Your task to perform on an android device: turn on translation in the chrome app Image 0: 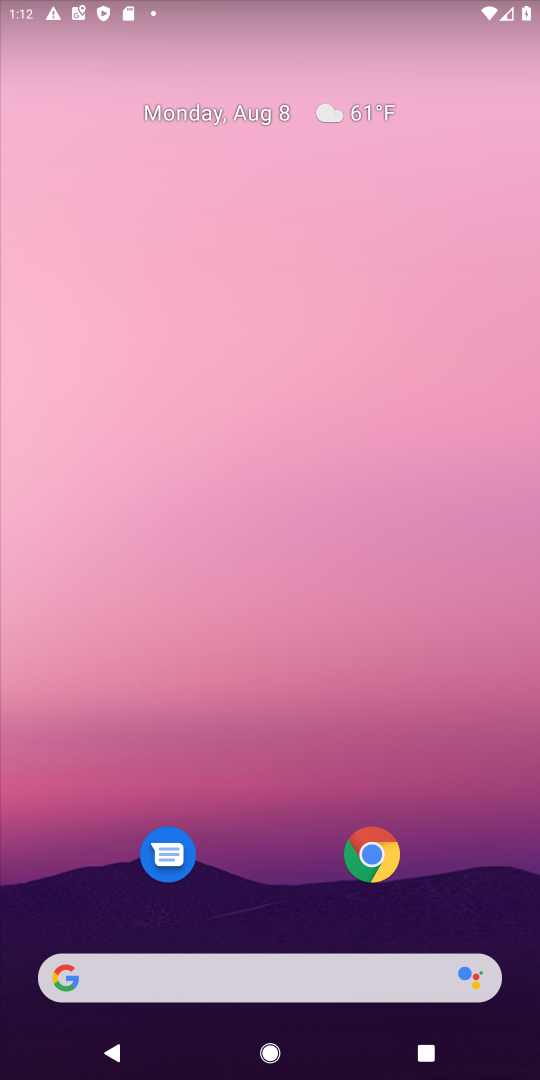
Step 0: click (394, 893)
Your task to perform on an android device: turn on translation in the chrome app Image 1: 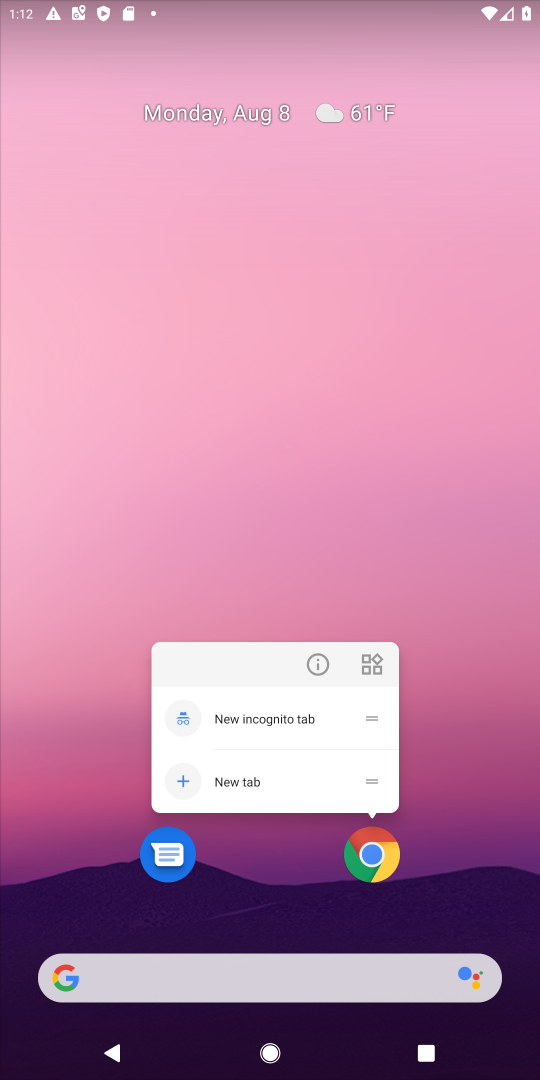
Step 1: click (363, 870)
Your task to perform on an android device: turn on translation in the chrome app Image 2: 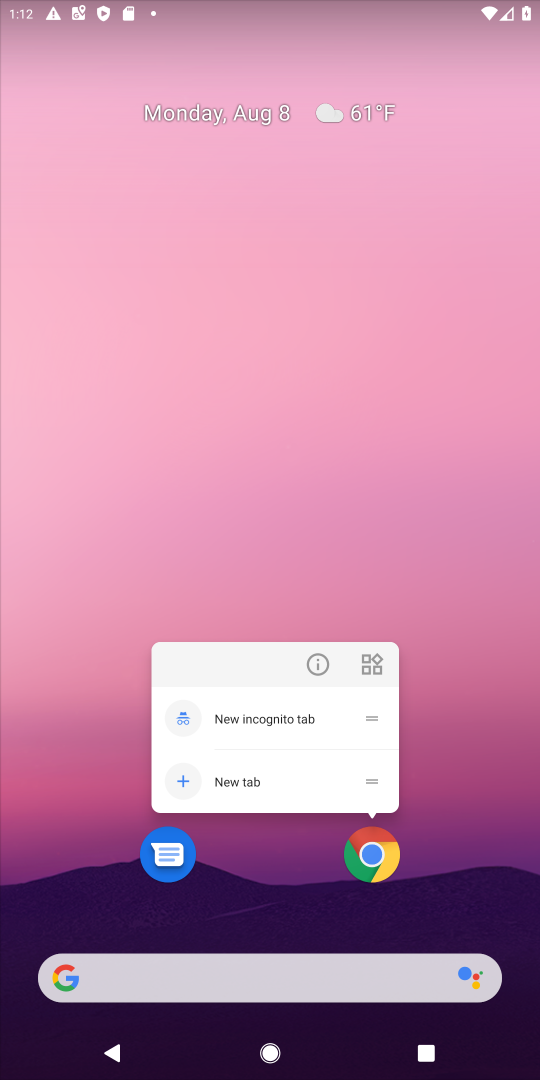
Step 2: click (366, 868)
Your task to perform on an android device: turn on translation in the chrome app Image 3: 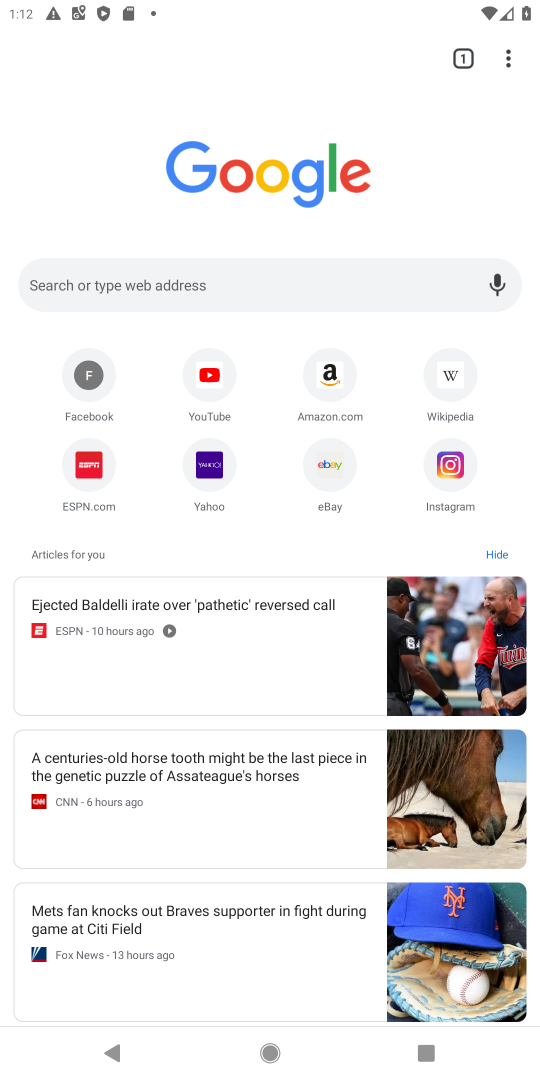
Step 3: click (515, 53)
Your task to perform on an android device: turn on translation in the chrome app Image 4: 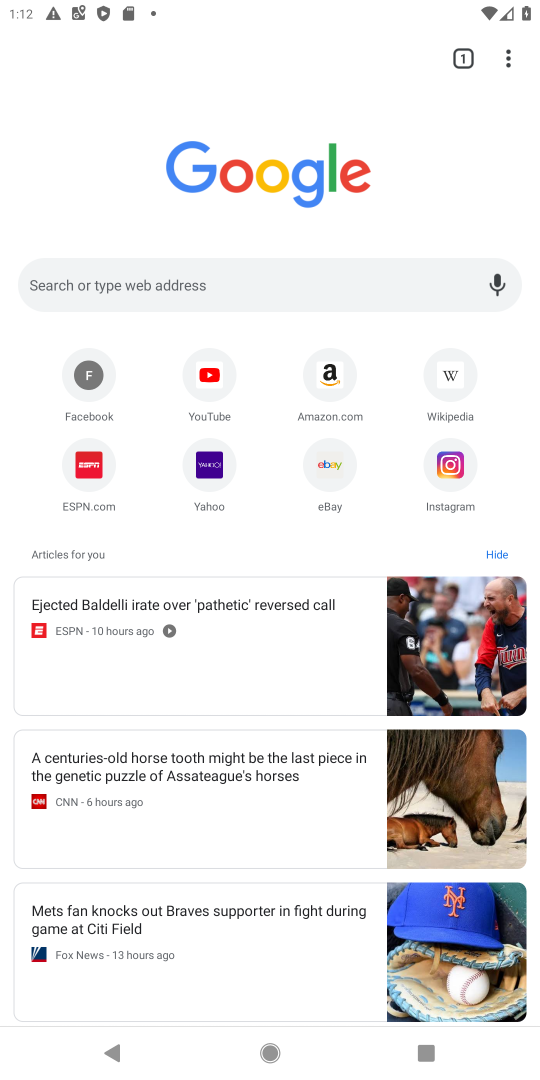
Step 4: click (512, 61)
Your task to perform on an android device: turn on translation in the chrome app Image 5: 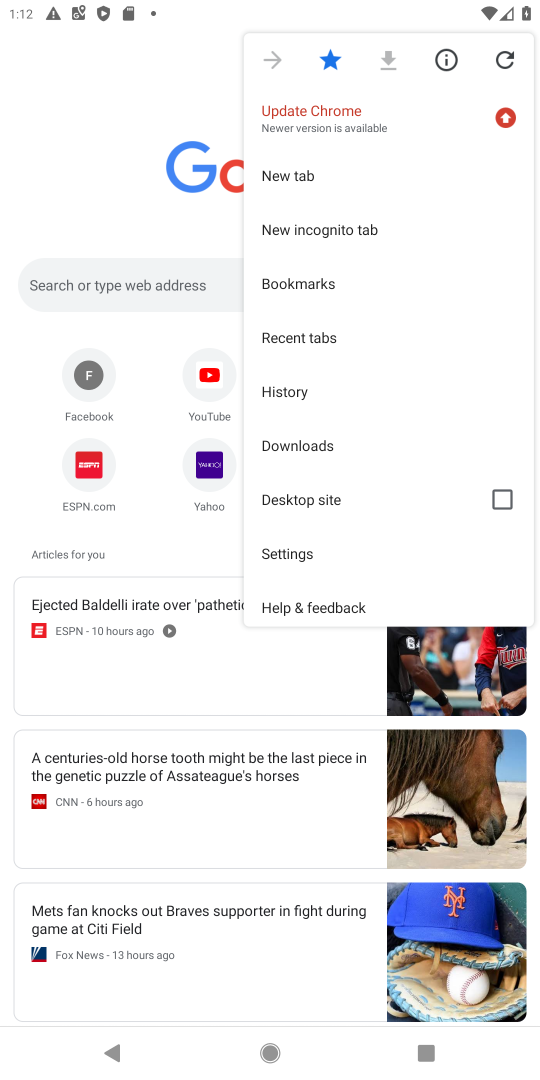
Step 5: click (307, 549)
Your task to perform on an android device: turn on translation in the chrome app Image 6: 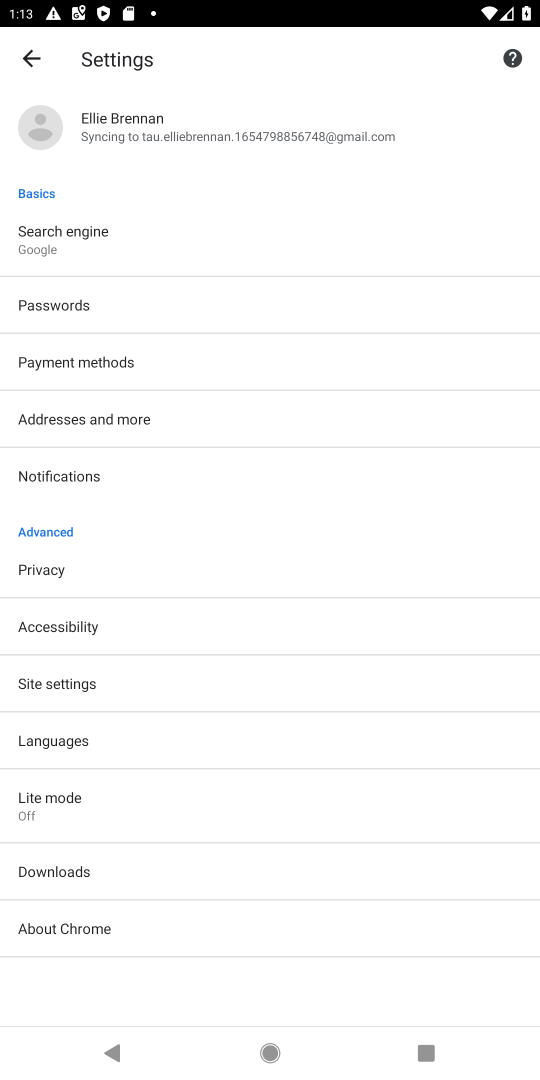
Step 6: click (54, 738)
Your task to perform on an android device: turn on translation in the chrome app Image 7: 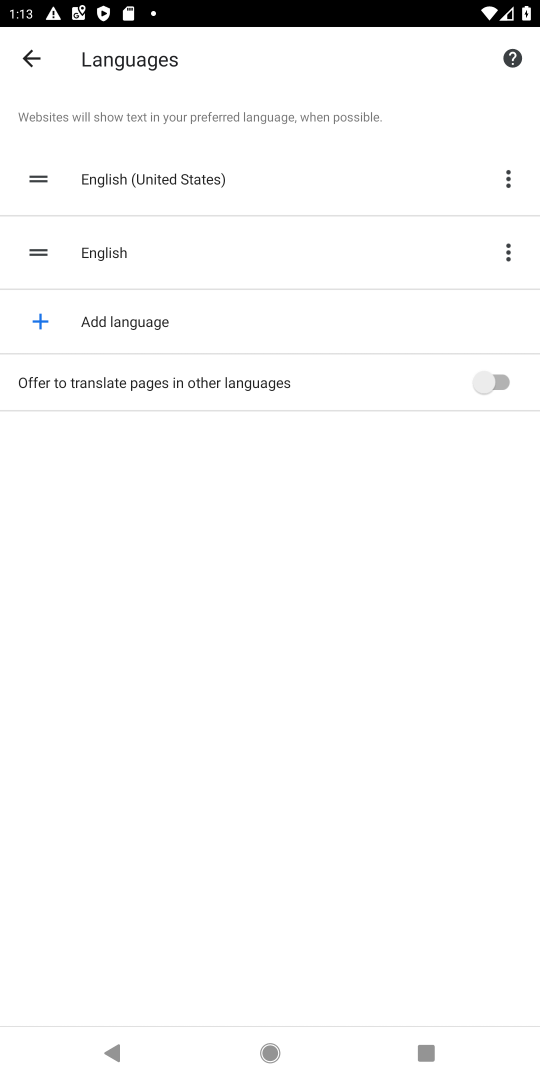
Step 7: click (491, 376)
Your task to perform on an android device: turn on translation in the chrome app Image 8: 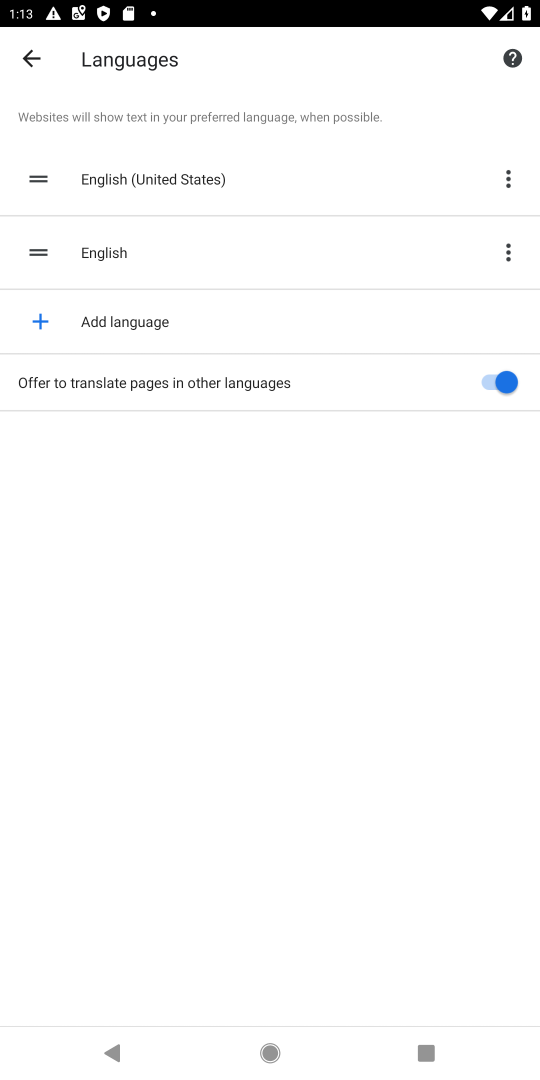
Step 8: task complete